Your task to perform on an android device: Show me recent news Image 0: 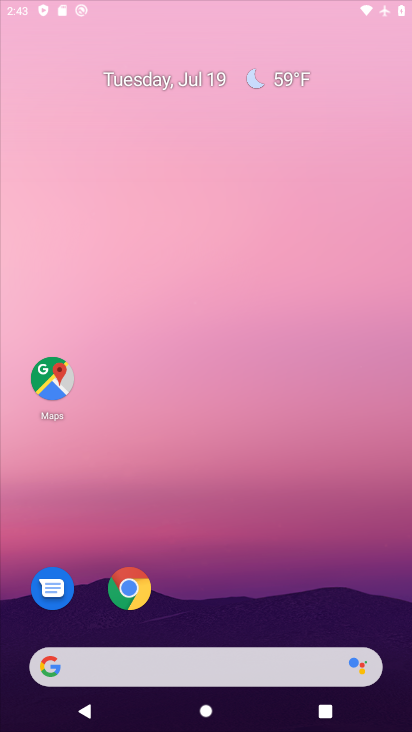
Step 0: press home button
Your task to perform on an android device: Show me recent news Image 1: 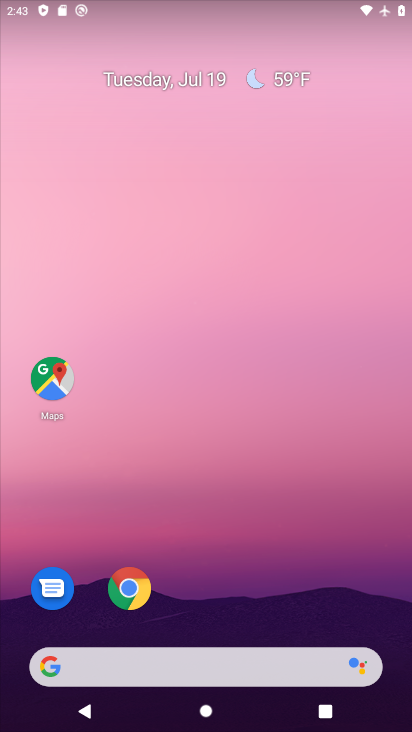
Step 1: click (47, 674)
Your task to perform on an android device: Show me recent news Image 2: 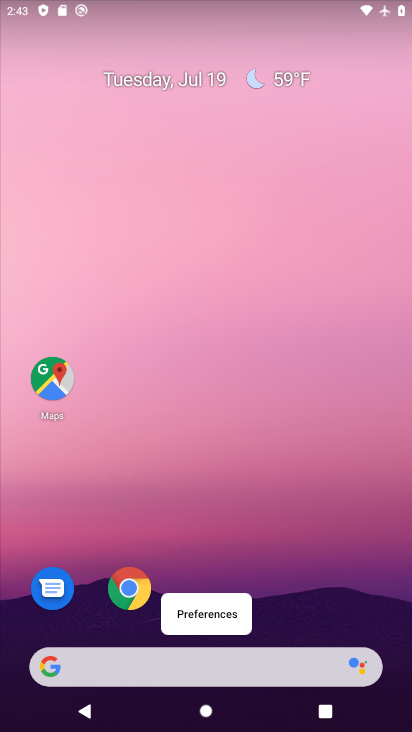
Step 2: click (42, 667)
Your task to perform on an android device: Show me recent news Image 3: 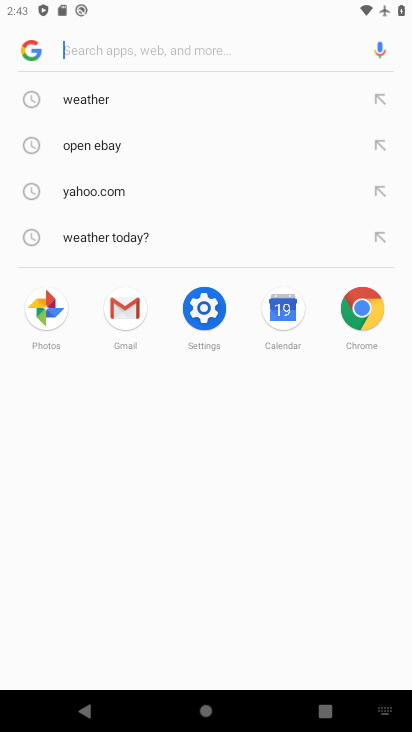
Step 3: type "recent news"
Your task to perform on an android device: Show me recent news Image 4: 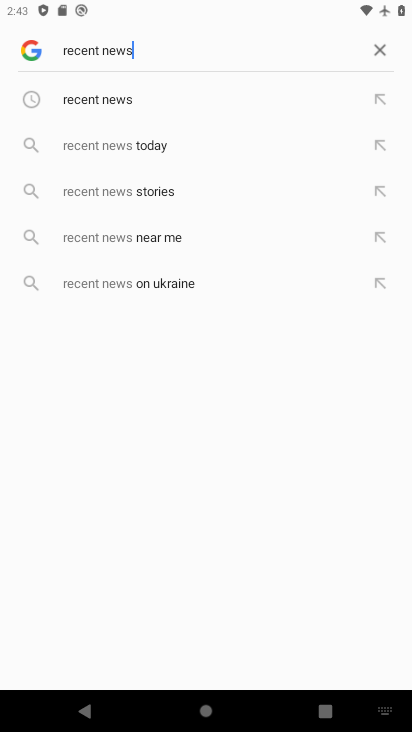
Step 4: press enter
Your task to perform on an android device: Show me recent news Image 5: 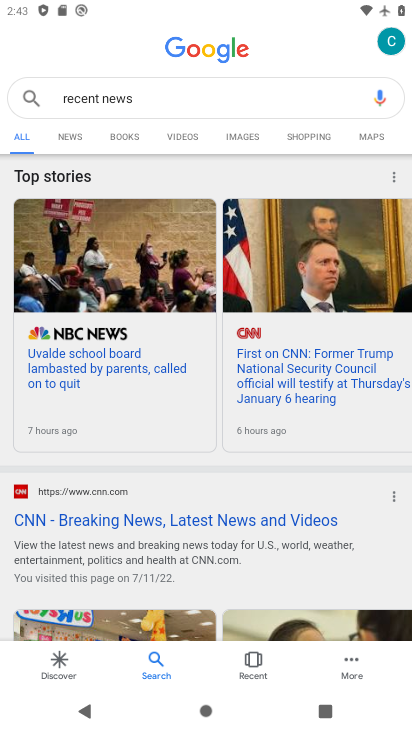
Step 5: task complete